Your task to perform on an android device: open wifi settings Image 0: 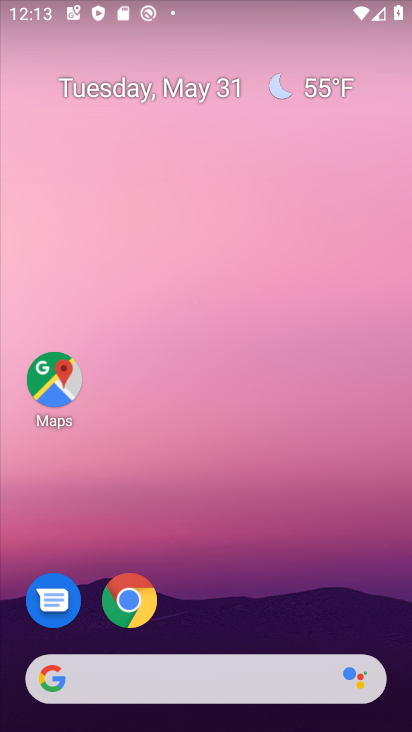
Step 0: drag from (300, 587) to (330, 193)
Your task to perform on an android device: open wifi settings Image 1: 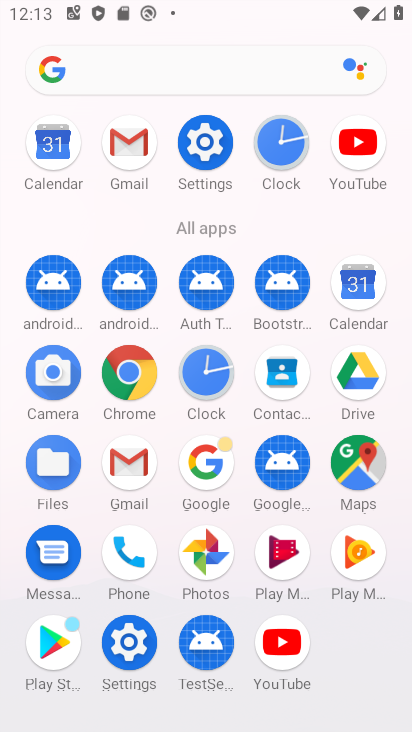
Step 1: click (219, 146)
Your task to perform on an android device: open wifi settings Image 2: 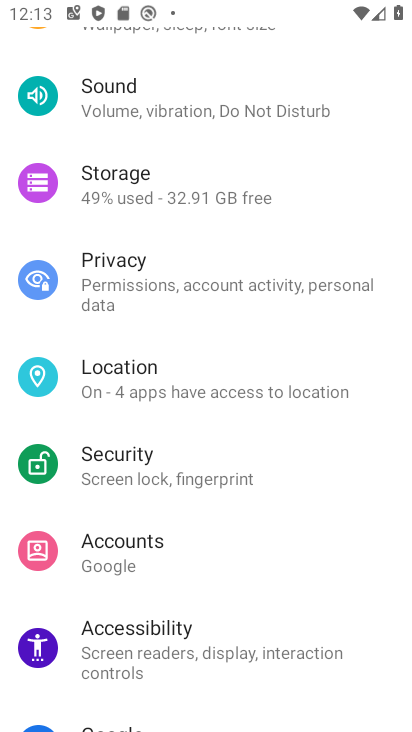
Step 2: drag from (351, 54) to (301, 713)
Your task to perform on an android device: open wifi settings Image 3: 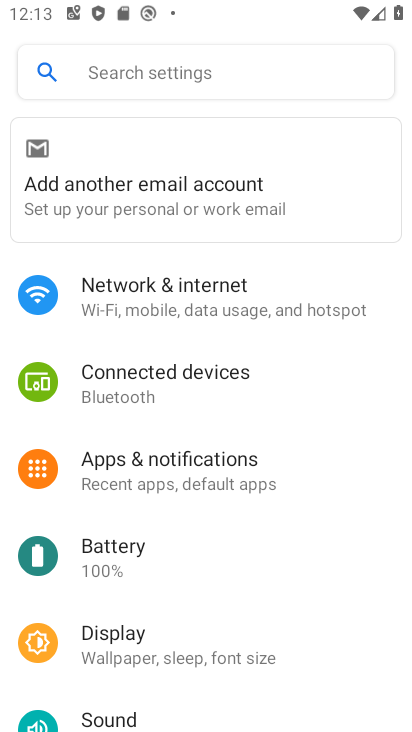
Step 3: click (214, 314)
Your task to perform on an android device: open wifi settings Image 4: 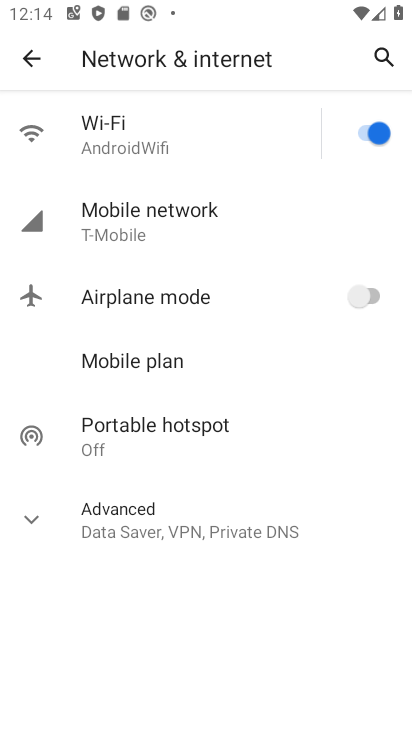
Step 4: click (175, 131)
Your task to perform on an android device: open wifi settings Image 5: 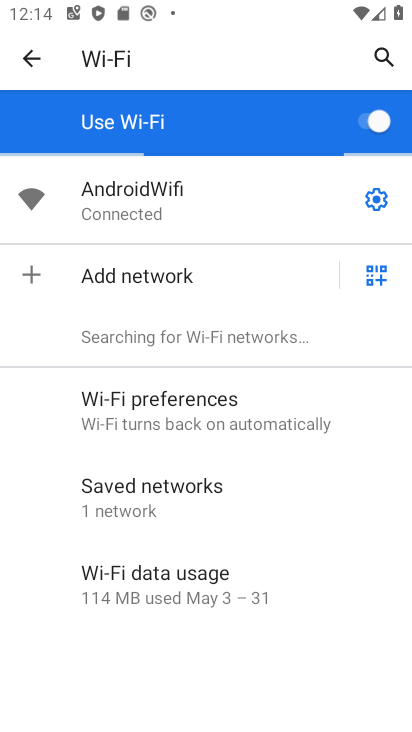
Step 5: task complete